Your task to perform on an android device: turn on airplane mode Image 0: 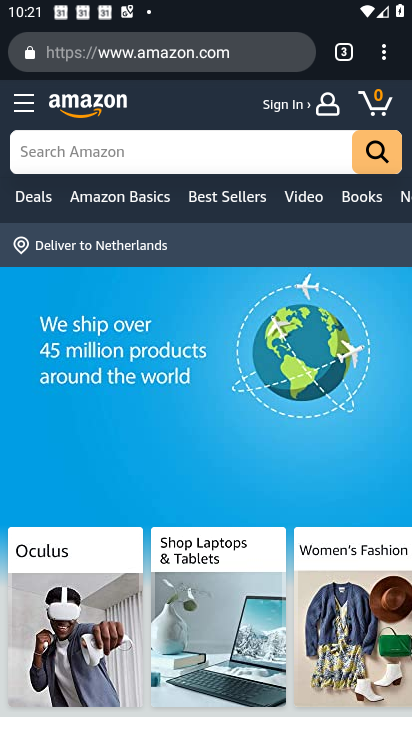
Step 0: press home button
Your task to perform on an android device: turn on airplane mode Image 1: 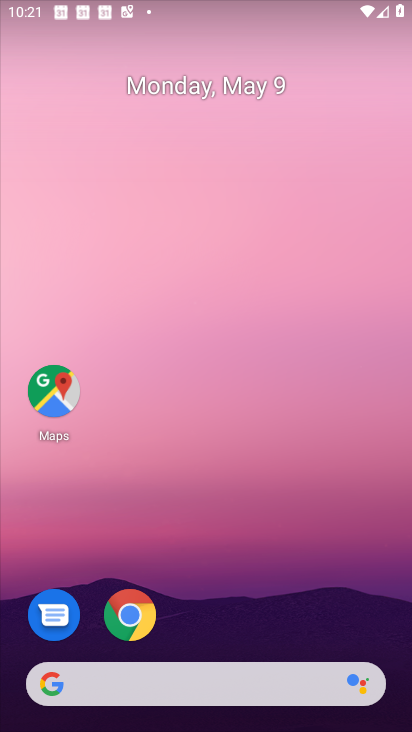
Step 1: drag from (265, 727) to (321, 238)
Your task to perform on an android device: turn on airplane mode Image 2: 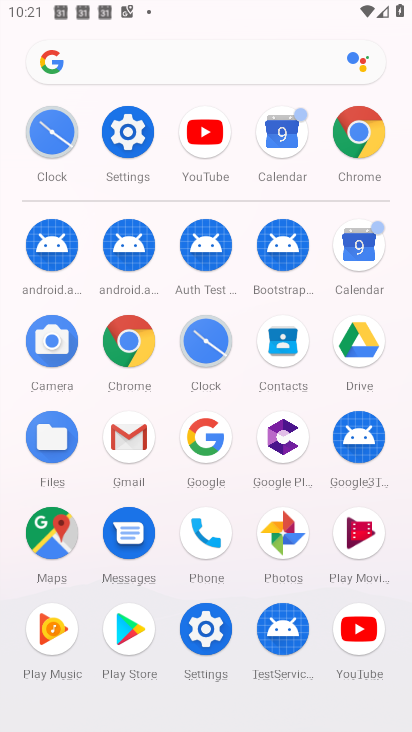
Step 2: click (129, 131)
Your task to perform on an android device: turn on airplane mode Image 3: 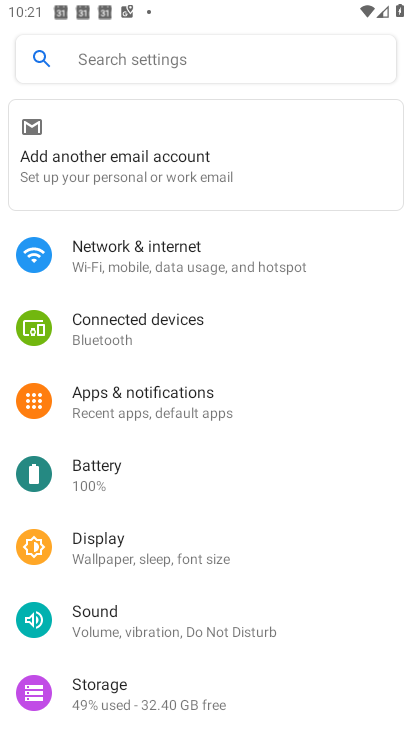
Step 3: click (134, 243)
Your task to perform on an android device: turn on airplane mode Image 4: 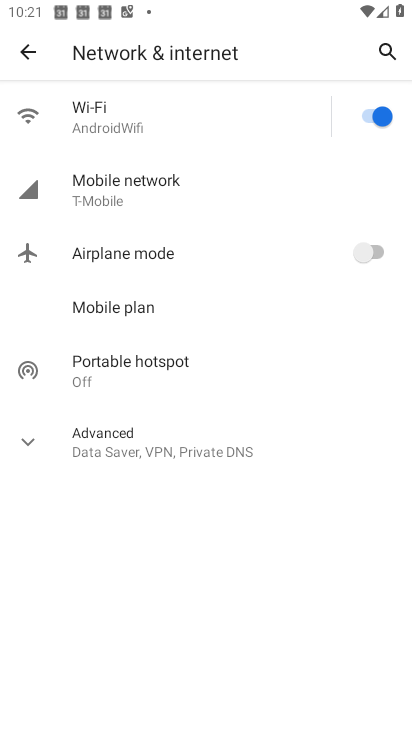
Step 4: click (329, 245)
Your task to perform on an android device: turn on airplane mode Image 5: 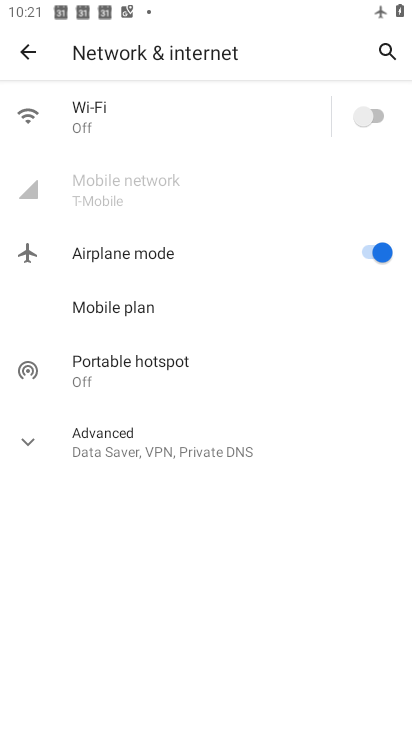
Step 5: task complete